Your task to perform on an android device: check storage Image 0: 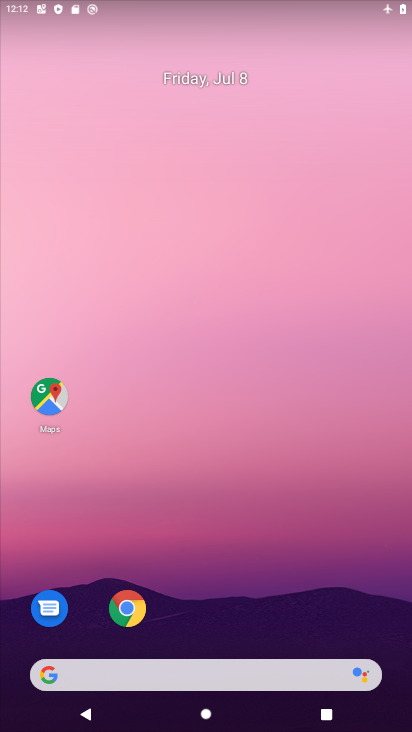
Step 0: drag from (276, 599) to (271, 393)
Your task to perform on an android device: check storage Image 1: 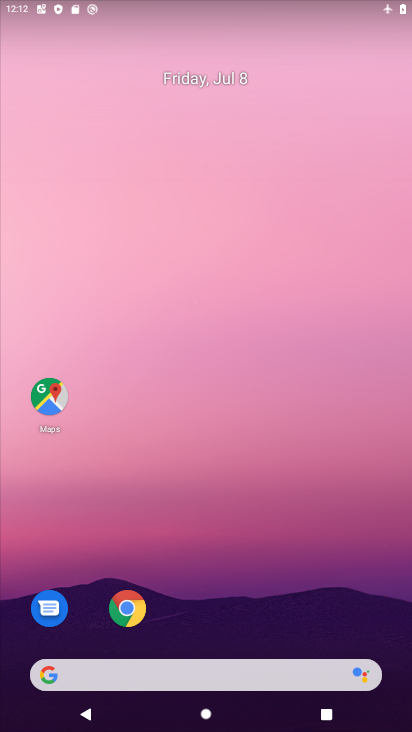
Step 1: drag from (329, 548) to (253, 223)
Your task to perform on an android device: check storage Image 2: 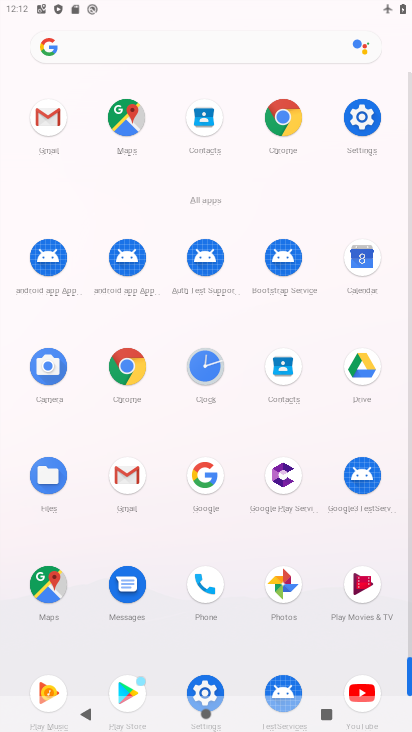
Step 2: click (365, 130)
Your task to perform on an android device: check storage Image 3: 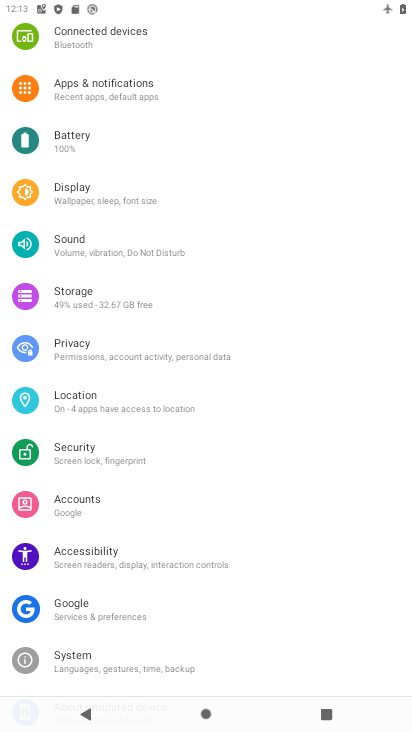
Step 3: click (58, 290)
Your task to perform on an android device: check storage Image 4: 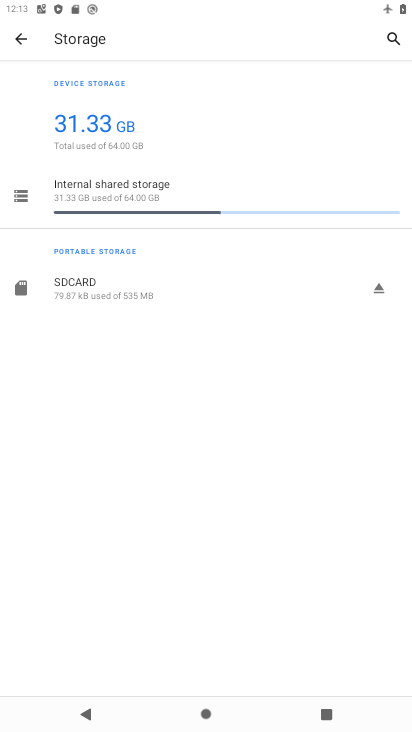
Step 4: task complete